Your task to perform on an android device: Go to location settings Image 0: 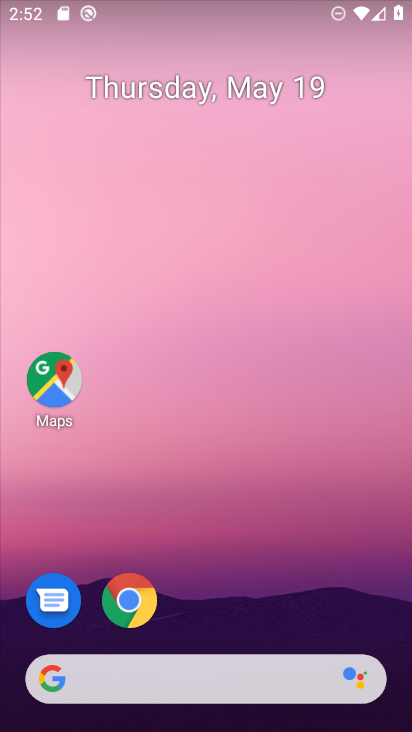
Step 0: drag from (407, 553) to (390, 207)
Your task to perform on an android device: Go to location settings Image 1: 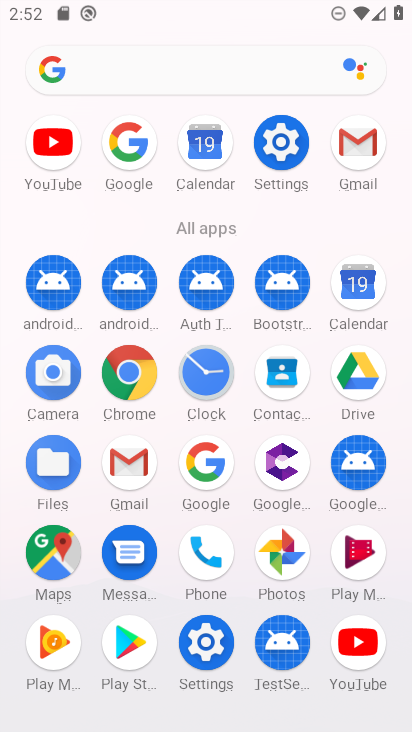
Step 1: click (271, 120)
Your task to perform on an android device: Go to location settings Image 2: 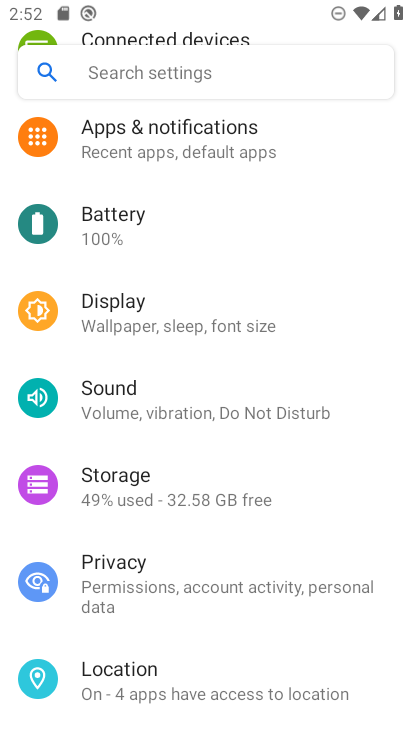
Step 2: click (128, 673)
Your task to perform on an android device: Go to location settings Image 3: 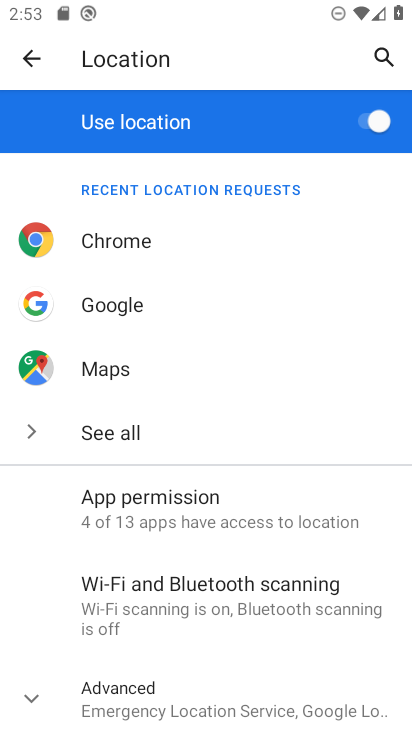
Step 3: task complete